Your task to perform on an android device: toggle sleep mode Image 0: 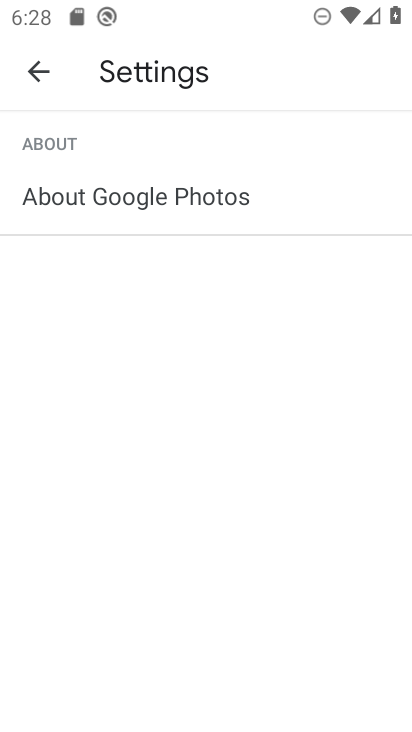
Step 0: press home button
Your task to perform on an android device: toggle sleep mode Image 1: 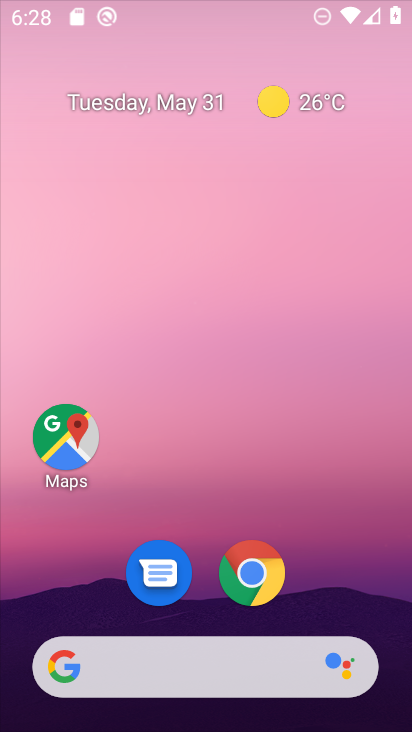
Step 1: drag from (388, 682) to (318, 36)
Your task to perform on an android device: toggle sleep mode Image 2: 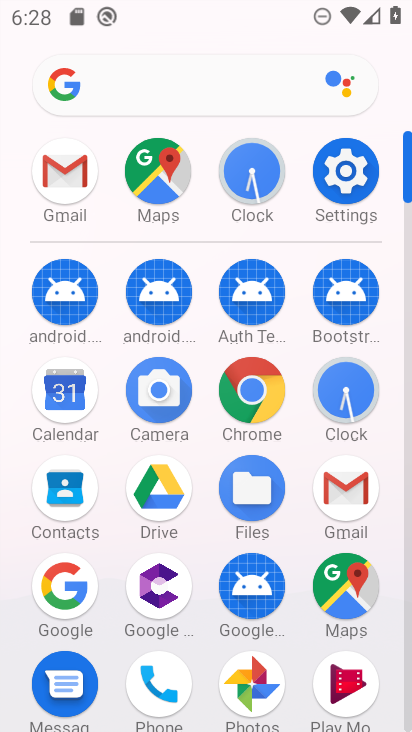
Step 2: click (318, 184)
Your task to perform on an android device: toggle sleep mode Image 3: 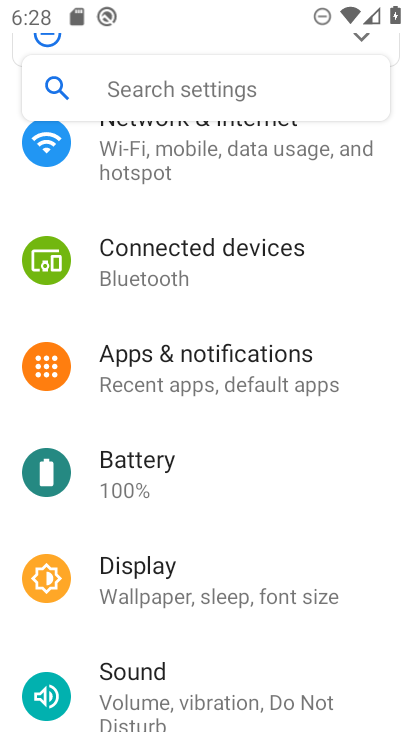
Step 3: task complete